Your task to perform on an android device: turn vacation reply on in the gmail app Image 0: 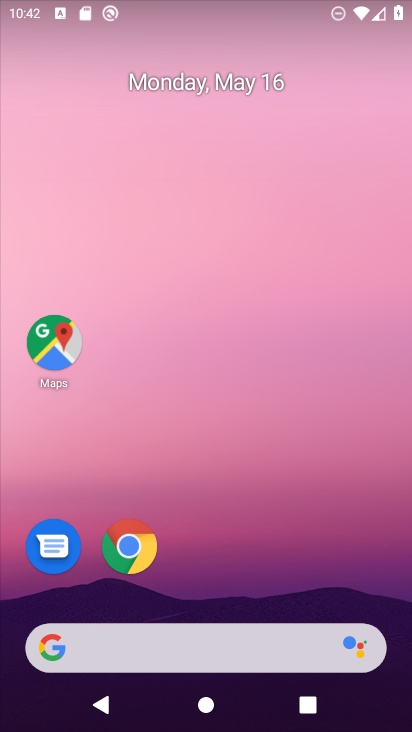
Step 0: drag from (210, 600) to (150, 74)
Your task to perform on an android device: turn vacation reply on in the gmail app Image 1: 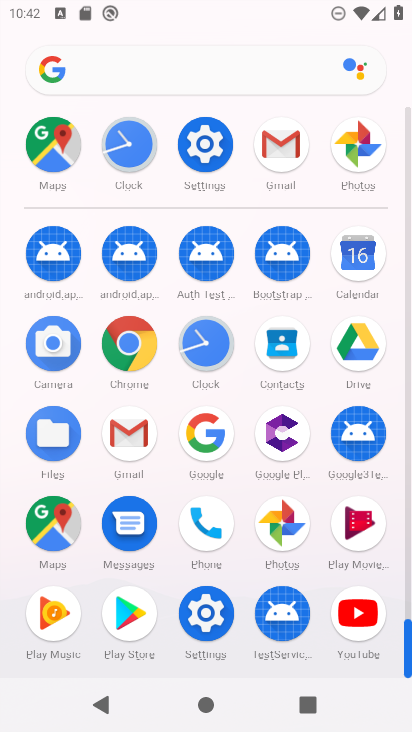
Step 1: click (284, 139)
Your task to perform on an android device: turn vacation reply on in the gmail app Image 2: 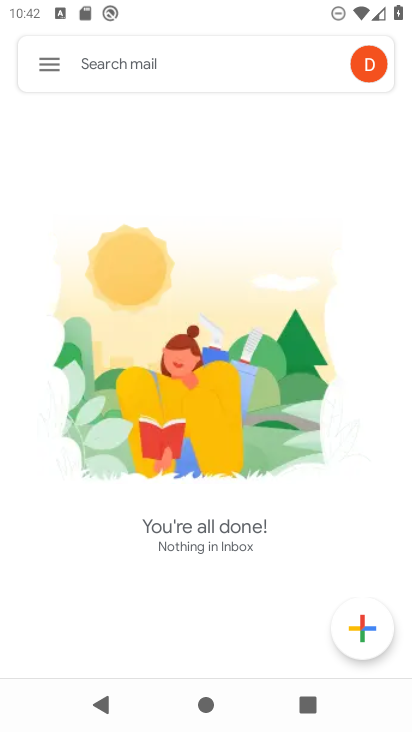
Step 2: click (40, 53)
Your task to perform on an android device: turn vacation reply on in the gmail app Image 3: 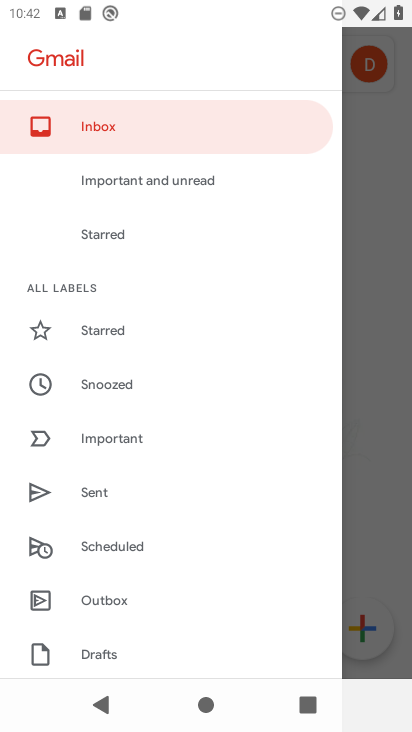
Step 3: drag from (48, 619) to (77, 321)
Your task to perform on an android device: turn vacation reply on in the gmail app Image 4: 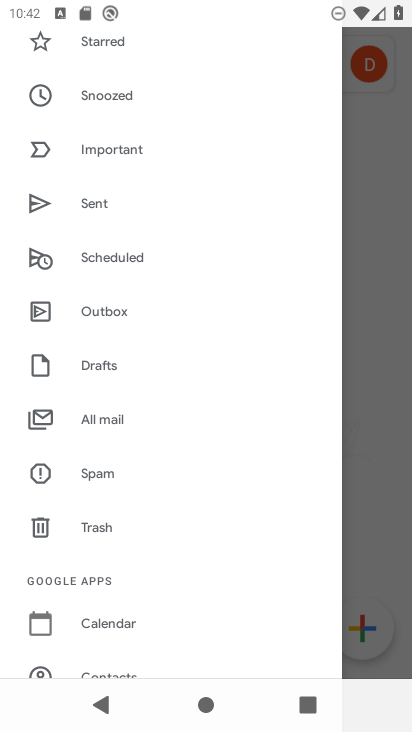
Step 4: drag from (55, 638) to (157, 122)
Your task to perform on an android device: turn vacation reply on in the gmail app Image 5: 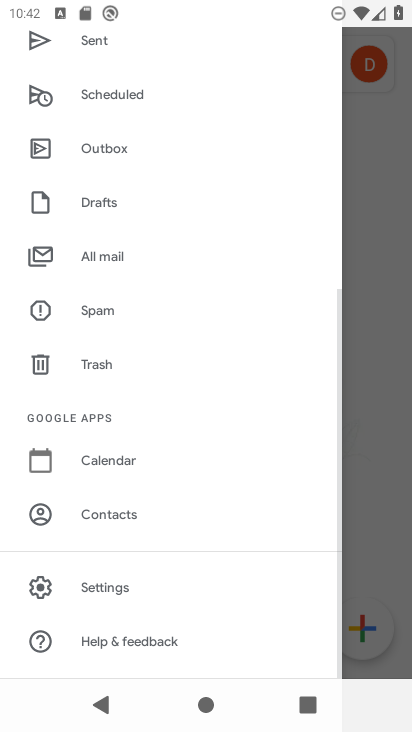
Step 5: click (140, 591)
Your task to perform on an android device: turn vacation reply on in the gmail app Image 6: 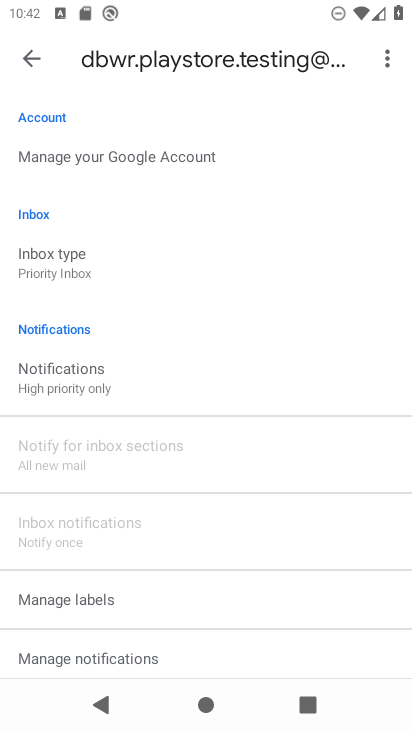
Step 6: drag from (103, 663) to (169, 180)
Your task to perform on an android device: turn vacation reply on in the gmail app Image 7: 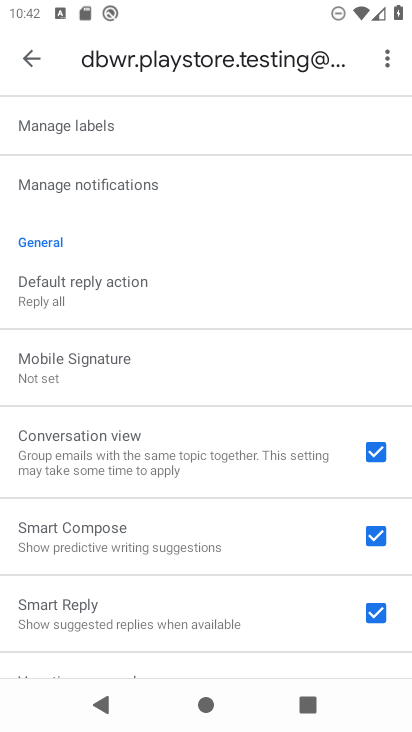
Step 7: drag from (219, 596) to (221, 190)
Your task to perform on an android device: turn vacation reply on in the gmail app Image 8: 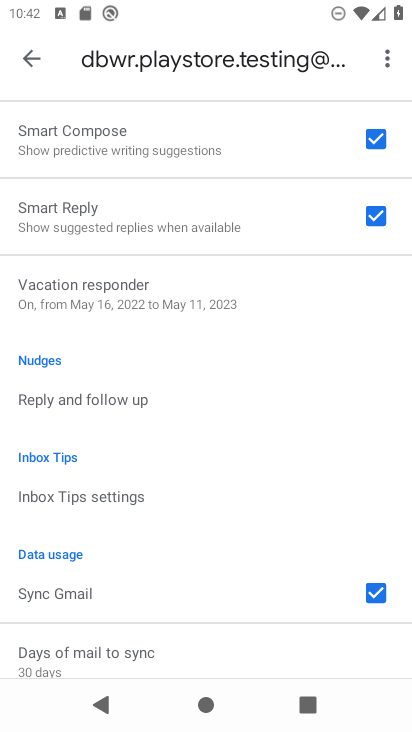
Step 8: click (152, 294)
Your task to perform on an android device: turn vacation reply on in the gmail app Image 9: 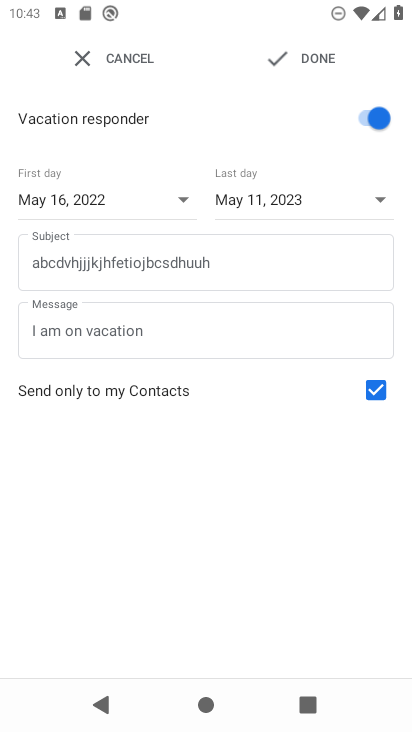
Step 9: task complete